Your task to perform on an android device: open app "Venmo" (install if not already installed) and go to login screen Image 0: 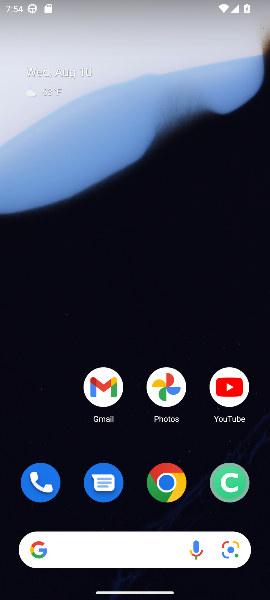
Step 0: drag from (129, 510) to (116, 1)
Your task to perform on an android device: open app "Venmo" (install if not already installed) and go to login screen Image 1: 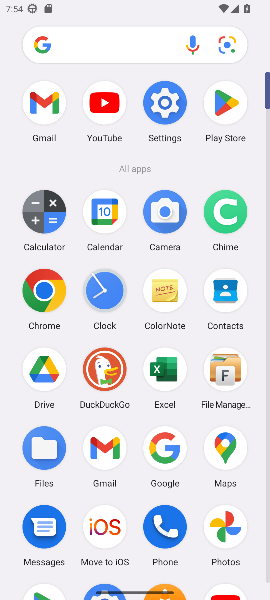
Step 1: click (233, 111)
Your task to perform on an android device: open app "Venmo" (install if not already installed) and go to login screen Image 2: 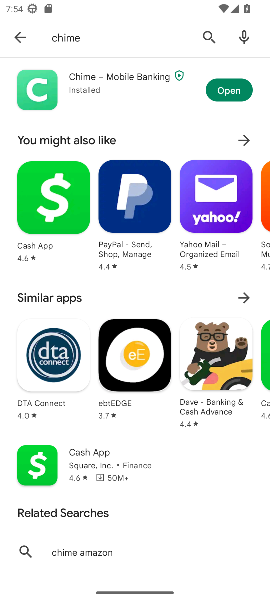
Step 2: click (99, 34)
Your task to perform on an android device: open app "Venmo" (install if not already installed) and go to login screen Image 3: 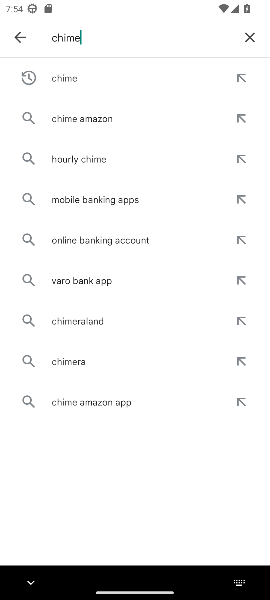
Step 3: click (246, 35)
Your task to perform on an android device: open app "Venmo" (install if not already installed) and go to login screen Image 4: 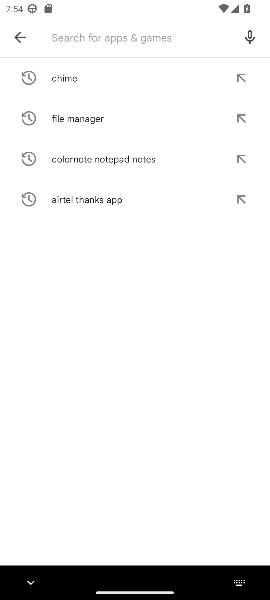
Step 4: type "Venmo"
Your task to perform on an android device: open app "Venmo" (install if not already installed) and go to login screen Image 5: 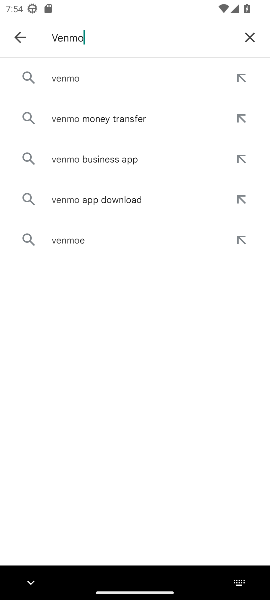
Step 5: click (90, 81)
Your task to perform on an android device: open app "Venmo" (install if not already installed) and go to login screen Image 6: 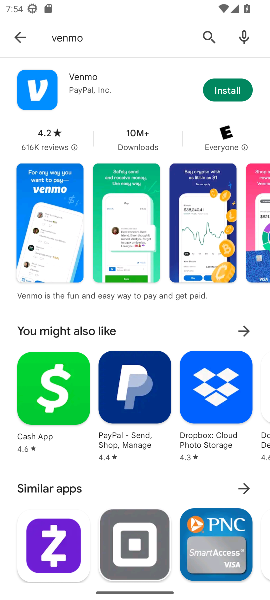
Step 6: click (233, 89)
Your task to perform on an android device: open app "Venmo" (install if not already installed) and go to login screen Image 7: 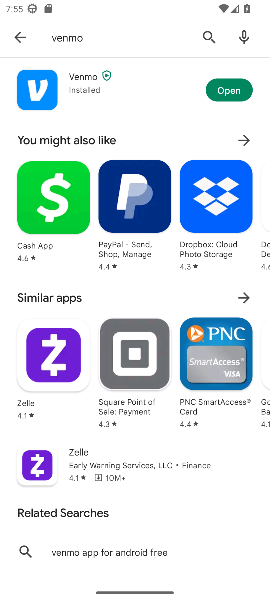
Step 7: click (214, 87)
Your task to perform on an android device: open app "Venmo" (install if not already installed) and go to login screen Image 8: 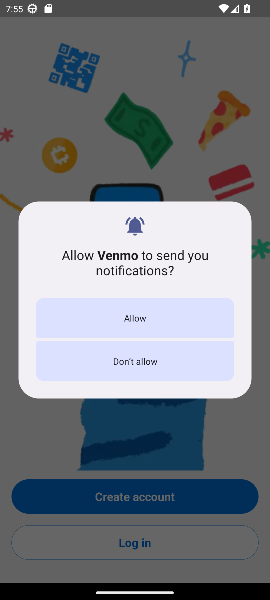
Step 8: click (177, 319)
Your task to perform on an android device: open app "Venmo" (install if not already installed) and go to login screen Image 9: 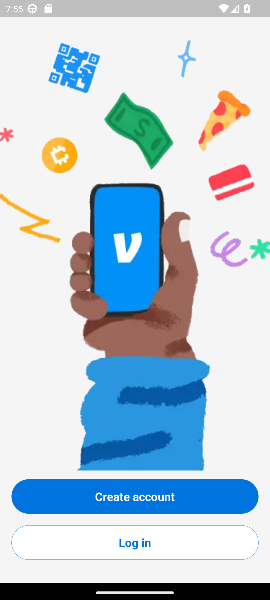
Step 9: click (167, 546)
Your task to perform on an android device: open app "Venmo" (install if not already installed) and go to login screen Image 10: 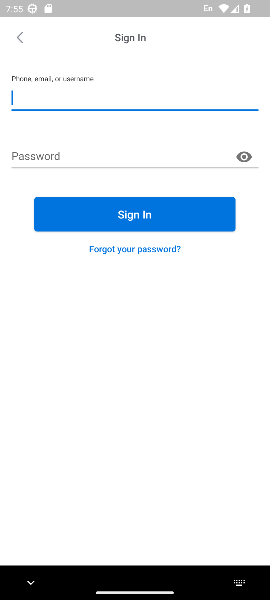
Step 10: task complete